Your task to perform on an android device: See recent photos Image 0: 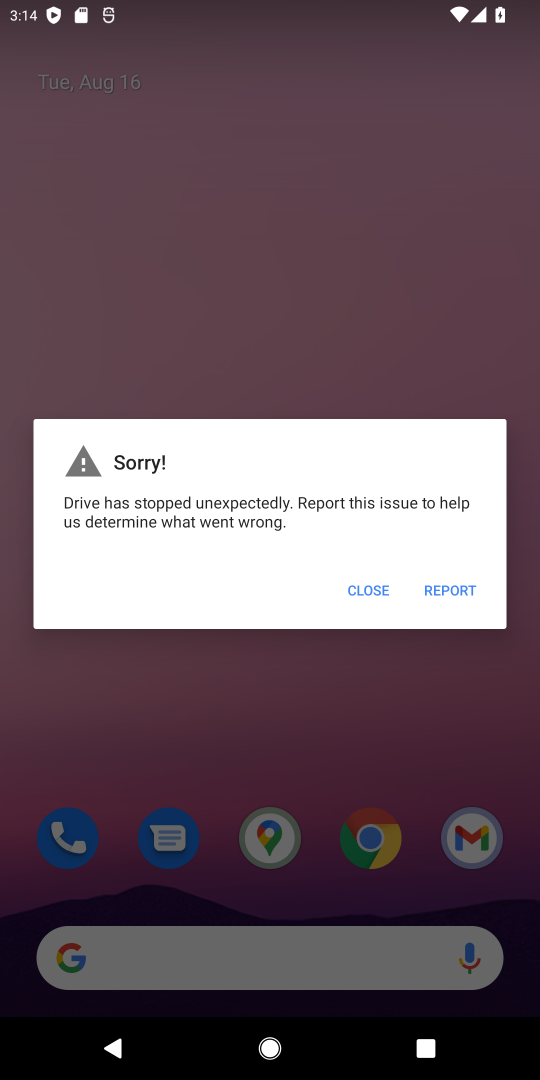
Step 0: press back button
Your task to perform on an android device: See recent photos Image 1: 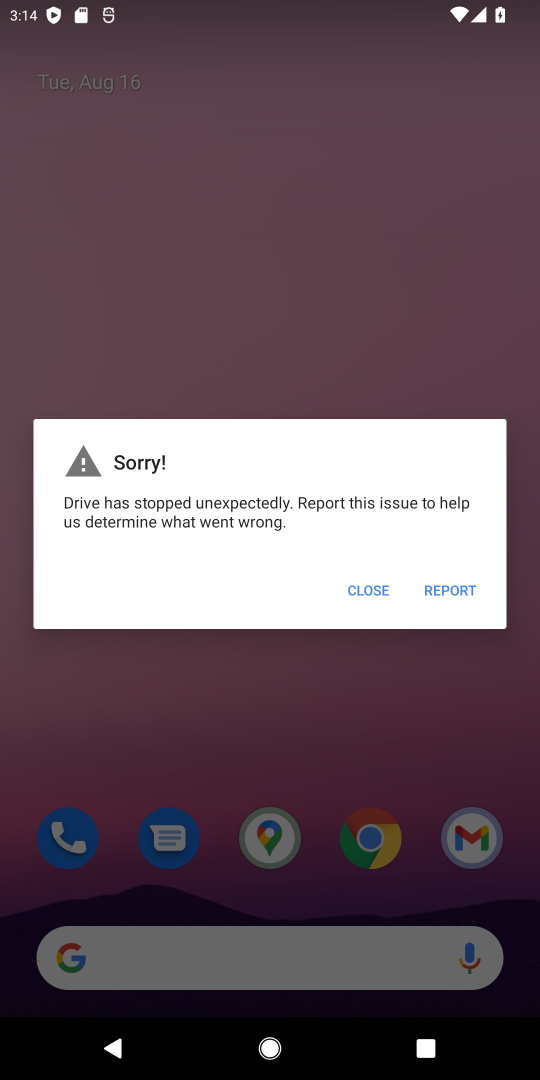
Step 1: click (362, 590)
Your task to perform on an android device: See recent photos Image 2: 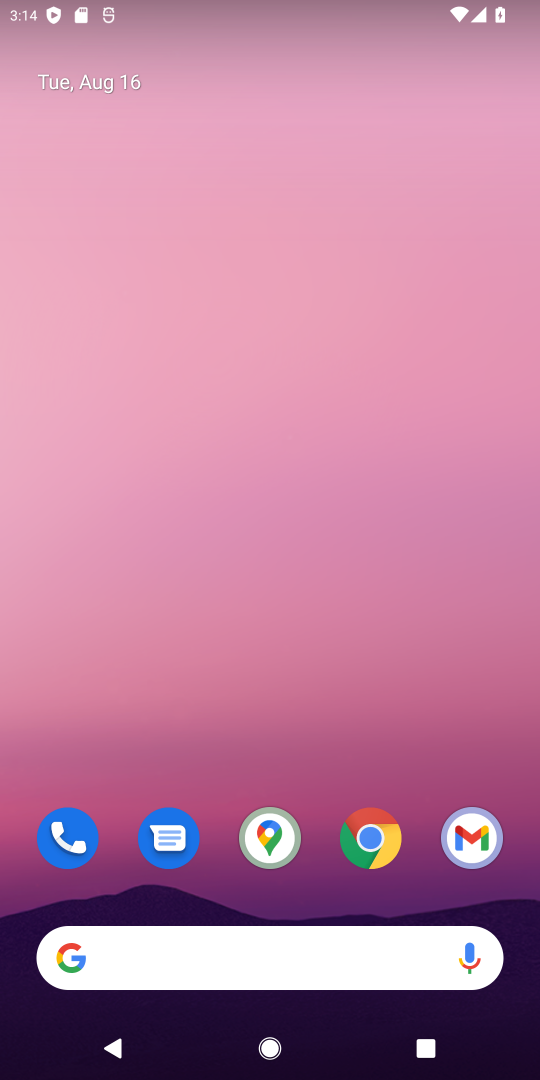
Step 2: drag from (254, 903) to (411, 1072)
Your task to perform on an android device: See recent photos Image 3: 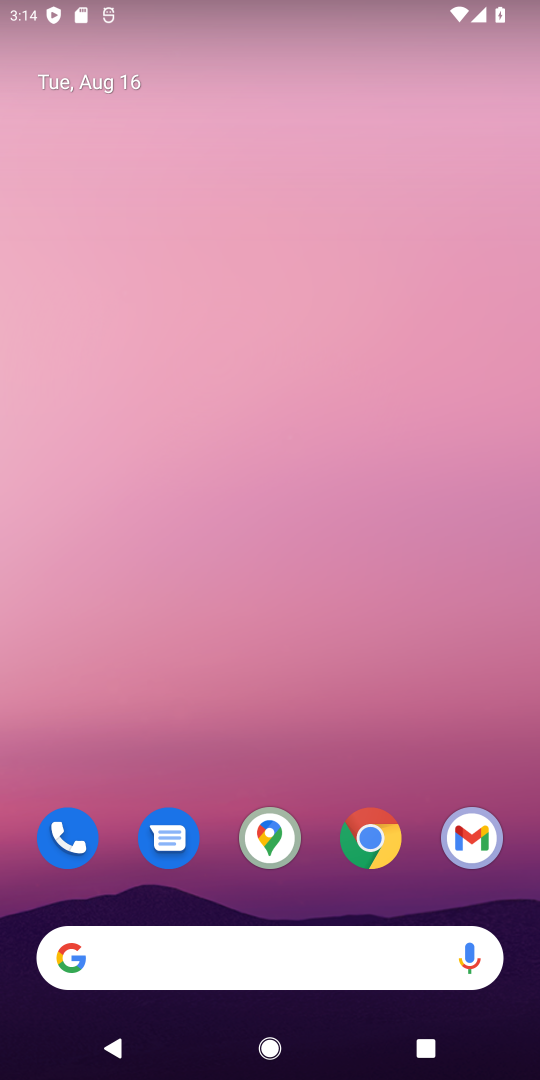
Step 3: drag from (290, 932) to (167, 32)
Your task to perform on an android device: See recent photos Image 4: 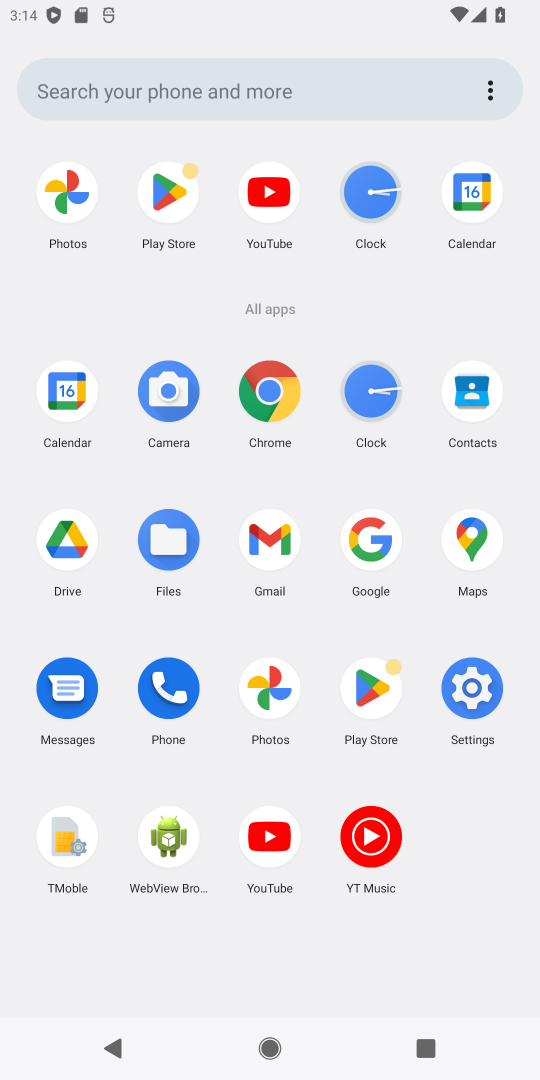
Step 4: click (277, 674)
Your task to perform on an android device: See recent photos Image 5: 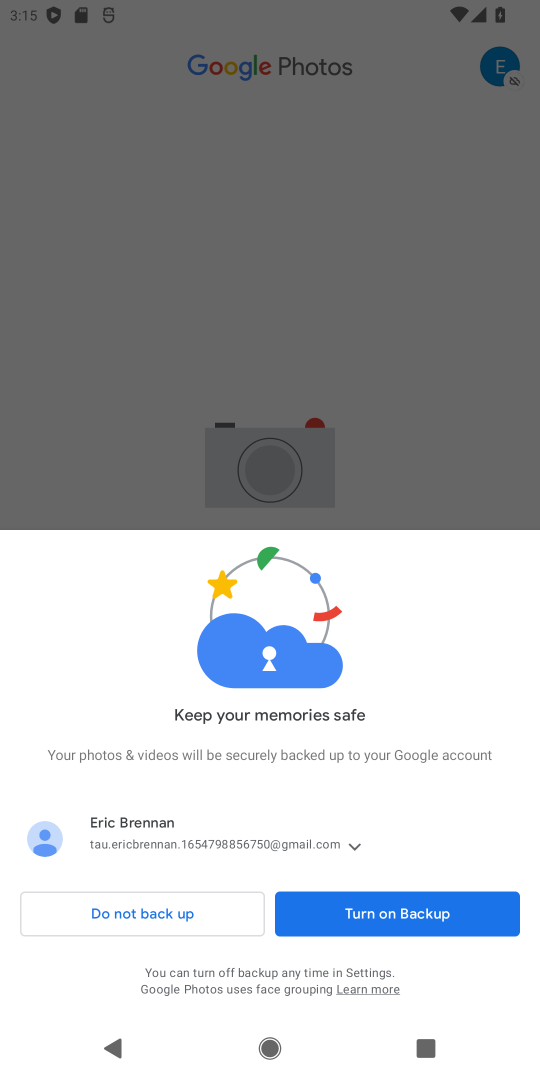
Step 5: click (466, 924)
Your task to perform on an android device: See recent photos Image 6: 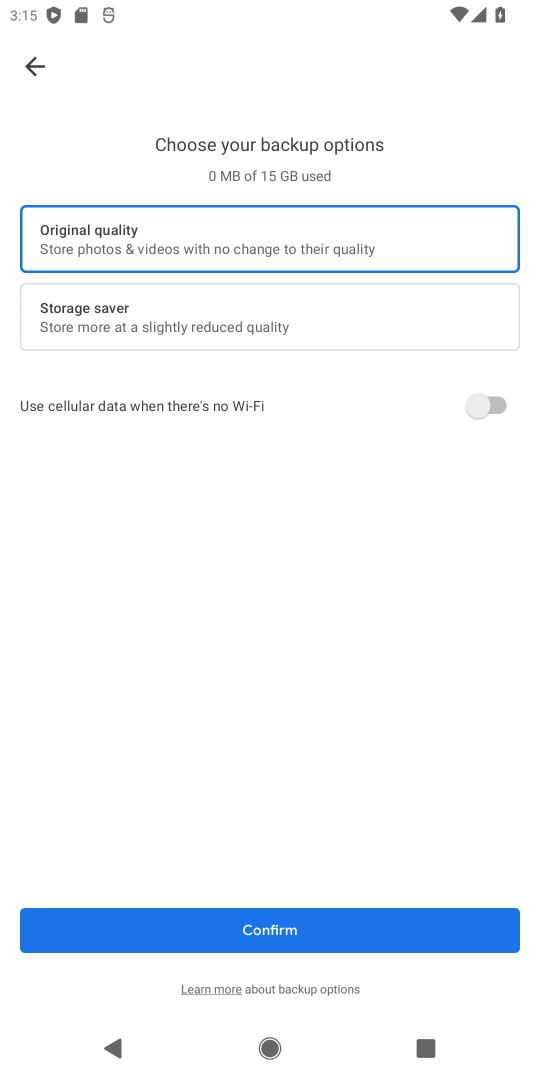
Step 6: drag from (466, 918) to (398, 918)
Your task to perform on an android device: See recent photos Image 7: 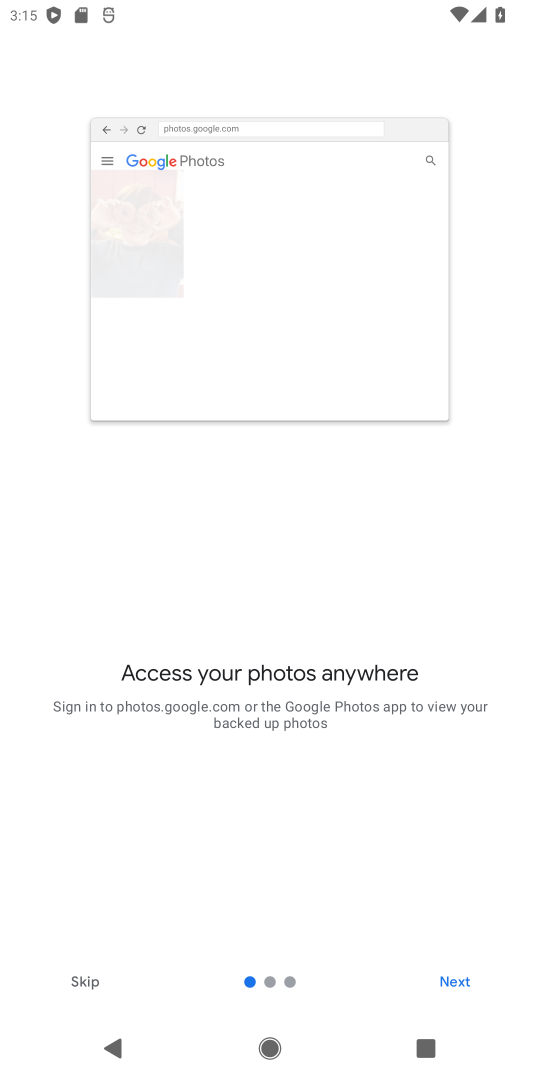
Step 7: click (459, 977)
Your task to perform on an android device: See recent photos Image 8: 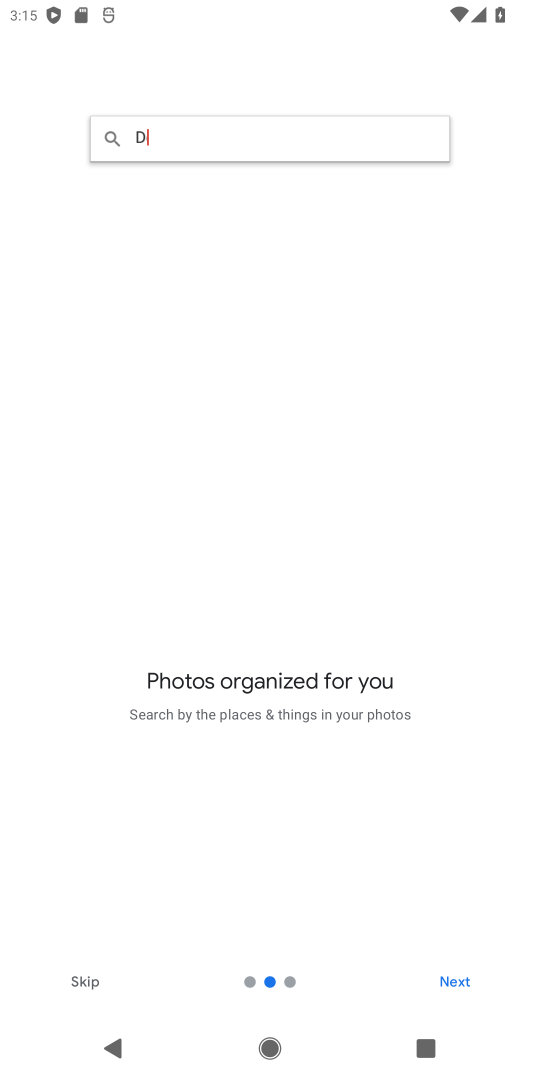
Step 8: click (459, 977)
Your task to perform on an android device: See recent photos Image 9: 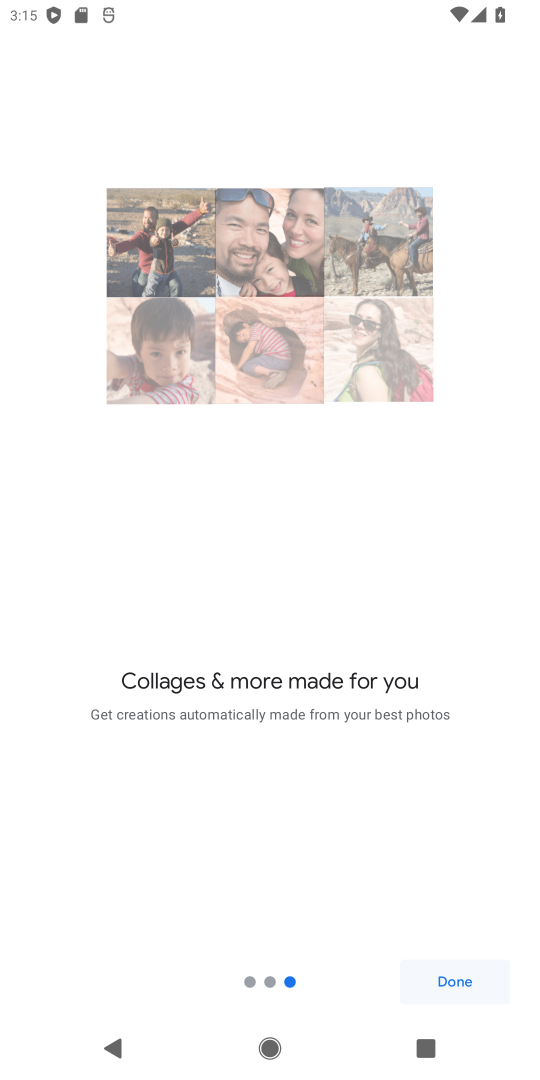
Step 9: click (459, 977)
Your task to perform on an android device: See recent photos Image 10: 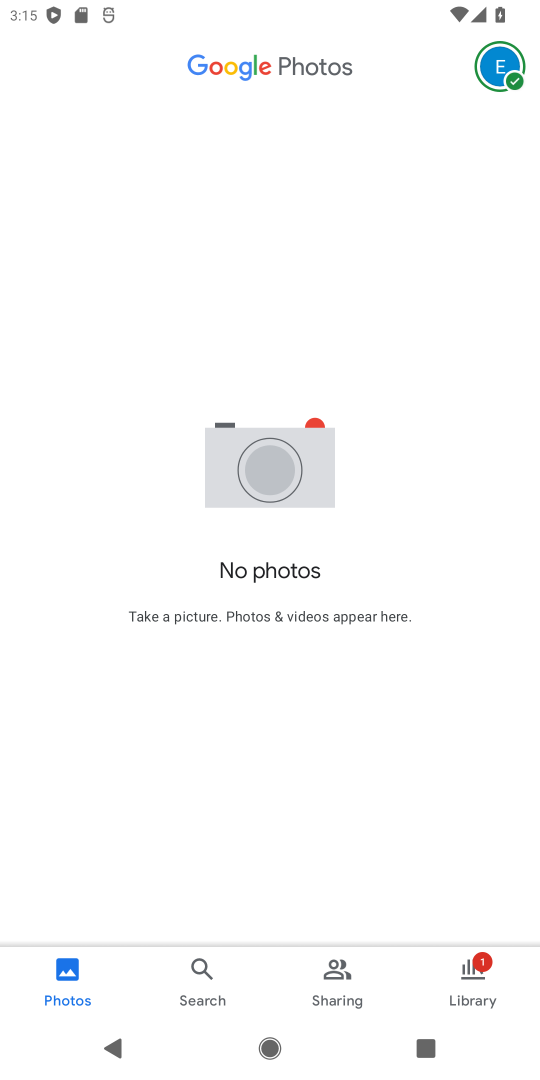
Step 10: task complete